Your task to perform on an android device: change the clock style Image 0: 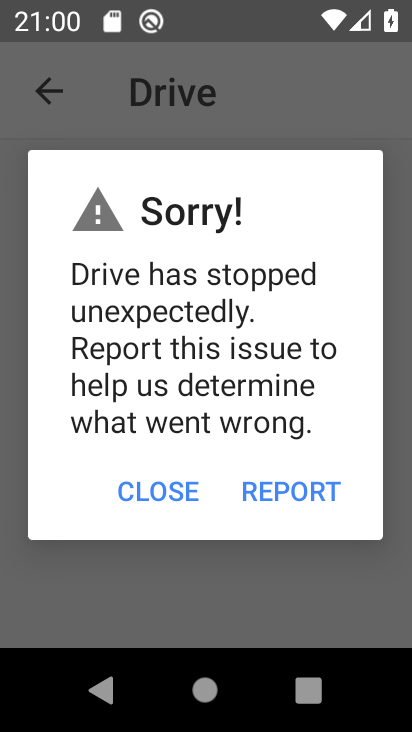
Step 0: press home button
Your task to perform on an android device: change the clock style Image 1: 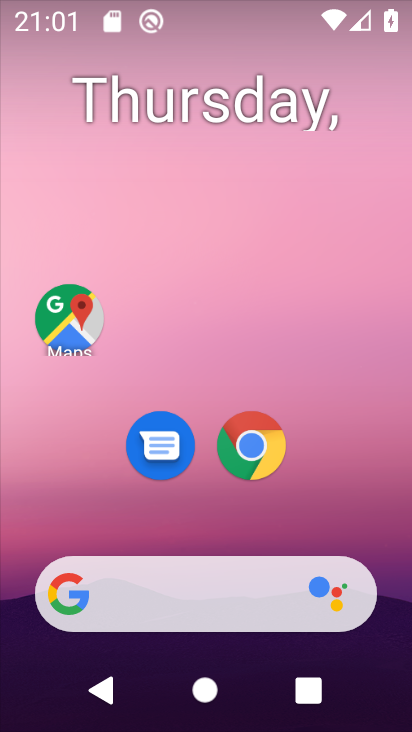
Step 1: drag from (198, 455) to (195, 92)
Your task to perform on an android device: change the clock style Image 2: 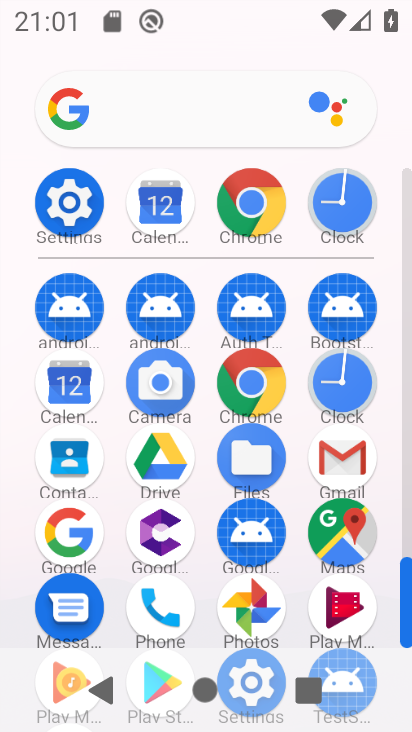
Step 2: click (331, 202)
Your task to perform on an android device: change the clock style Image 3: 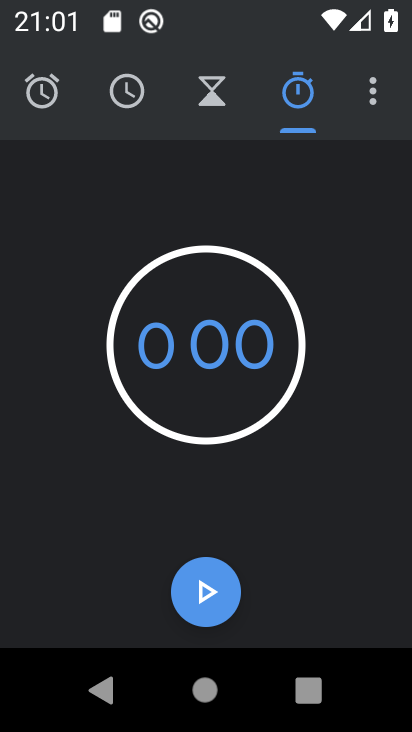
Step 3: click (365, 93)
Your task to perform on an android device: change the clock style Image 4: 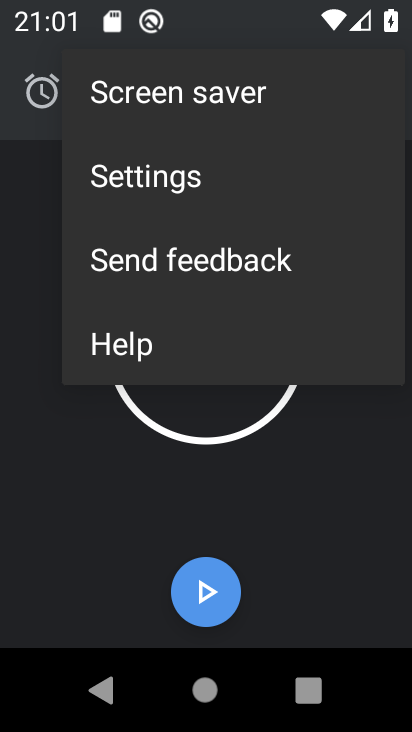
Step 4: click (158, 178)
Your task to perform on an android device: change the clock style Image 5: 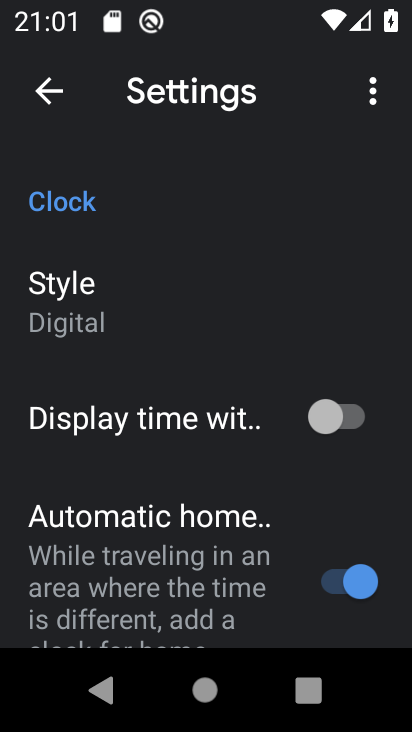
Step 5: click (64, 323)
Your task to perform on an android device: change the clock style Image 6: 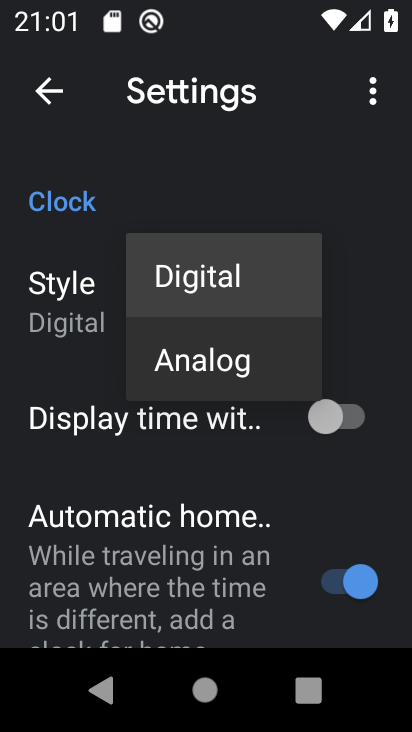
Step 6: click (212, 353)
Your task to perform on an android device: change the clock style Image 7: 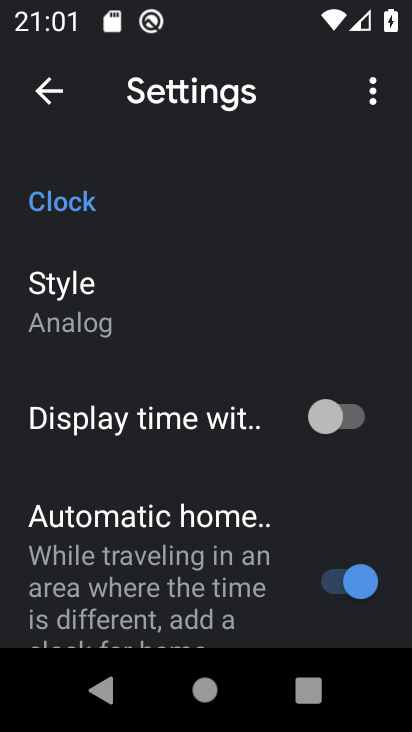
Step 7: task complete